Your task to perform on an android device: Do I have any events tomorrow? Image 0: 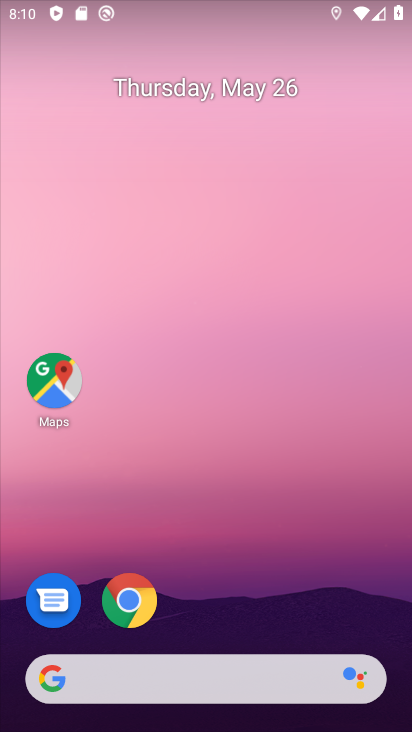
Step 0: drag from (298, 613) to (311, 255)
Your task to perform on an android device: Do I have any events tomorrow? Image 1: 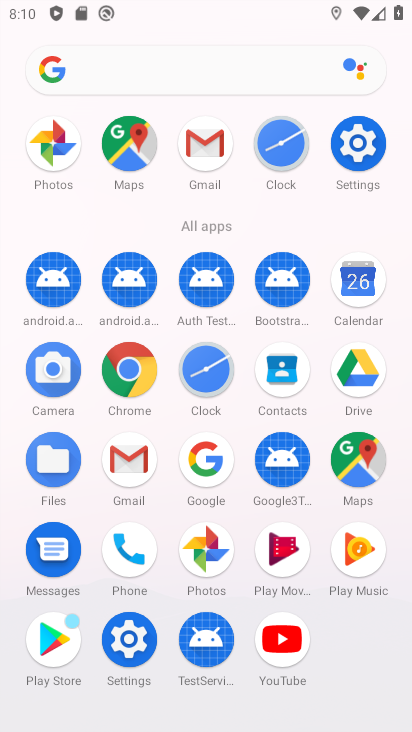
Step 1: click (357, 279)
Your task to perform on an android device: Do I have any events tomorrow? Image 2: 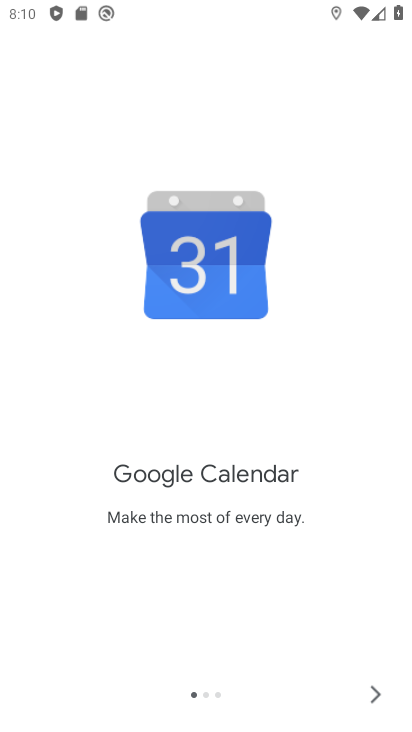
Step 2: click (375, 705)
Your task to perform on an android device: Do I have any events tomorrow? Image 3: 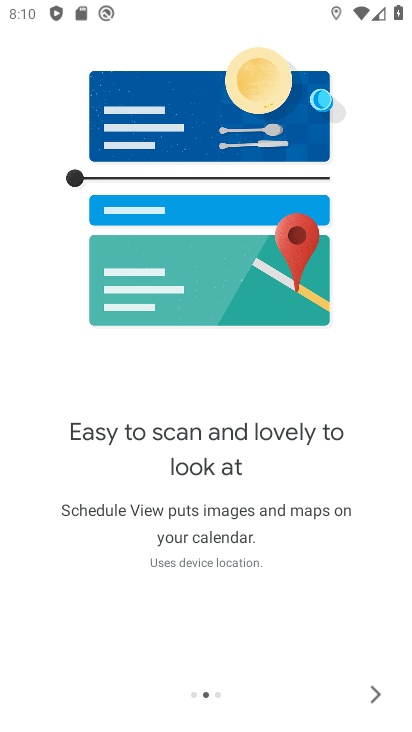
Step 3: click (375, 705)
Your task to perform on an android device: Do I have any events tomorrow? Image 4: 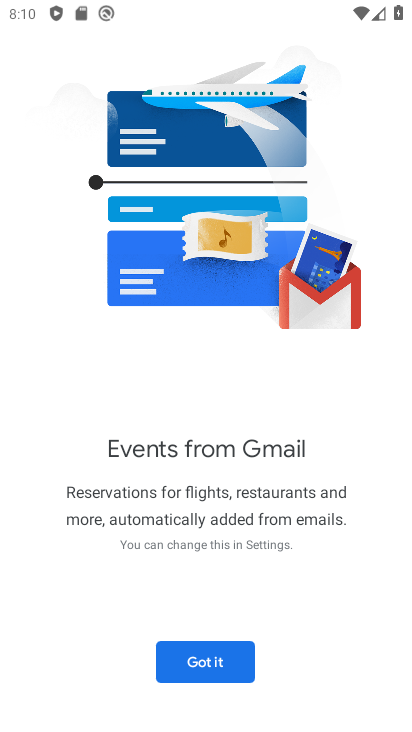
Step 4: click (192, 665)
Your task to perform on an android device: Do I have any events tomorrow? Image 5: 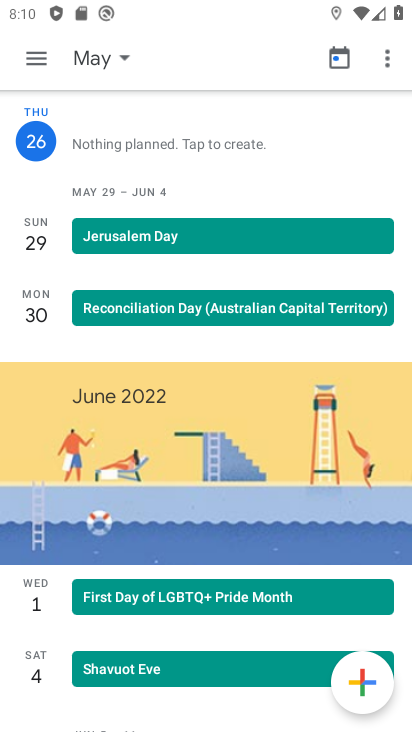
Step 5: click (103, 58)
Your task to perform on an android device: Do I have any events tomorrow? Image 6: 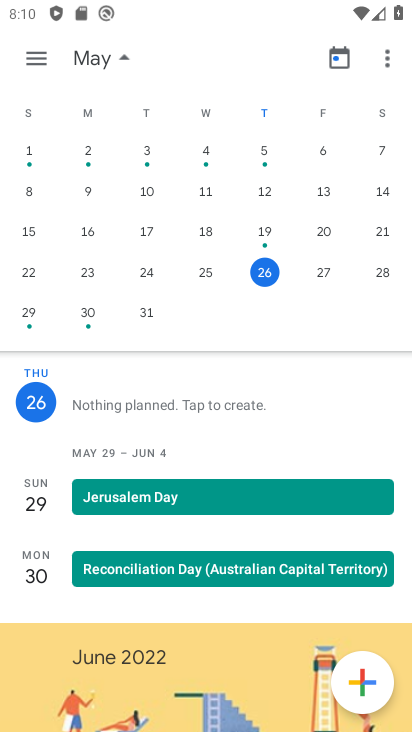
Step 6: click (323, 266)
Your task to perform on an android device: Do I have any events tomorrow? Image 7: 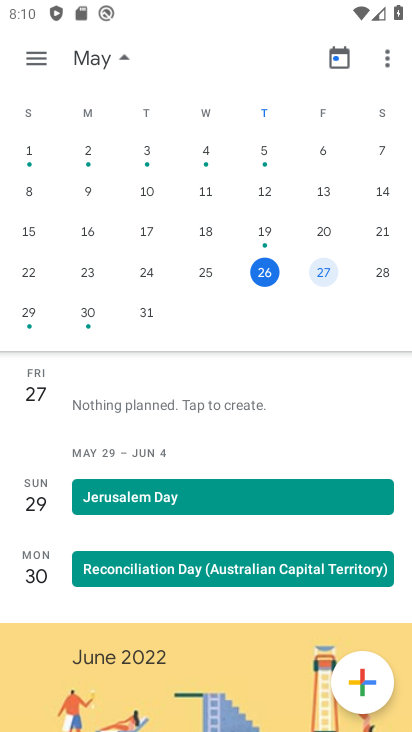
Step 7: task complete